Your task to perform on an android device: Show me recent news Image 0: 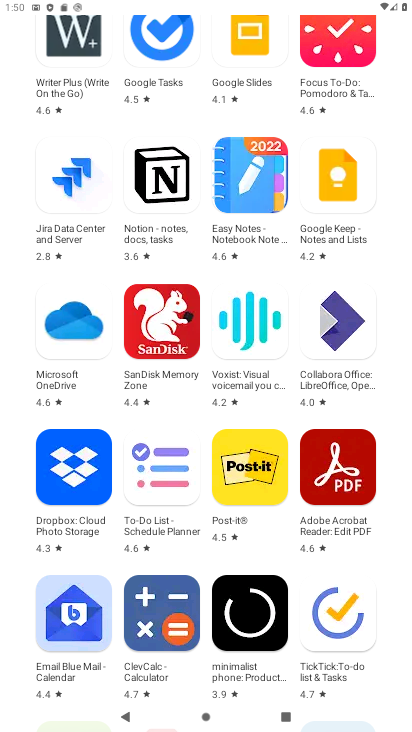
Step 0: press home button
Your task to perform on an android device: Show me recent news Image 1: 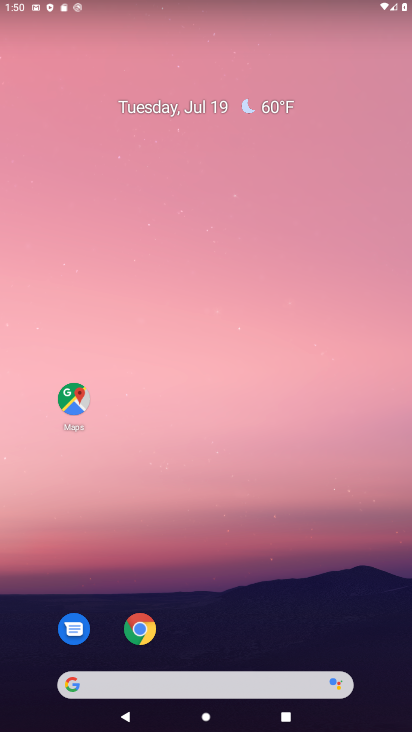
Step 1: task complete